Your task to perform on an android device: What's on my calendar tomorrow? Image 0: 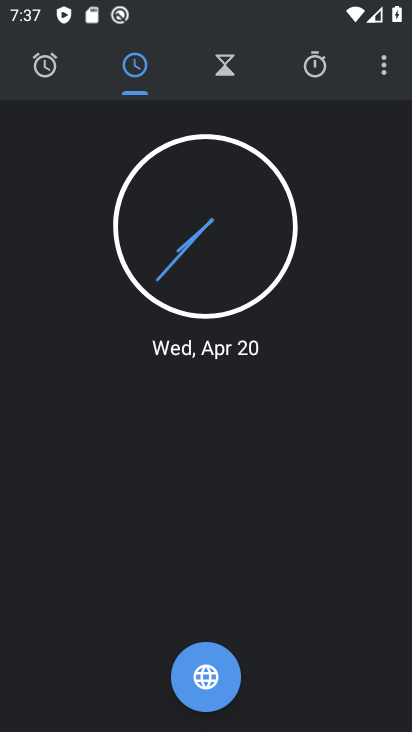
Step 0: press home button
Your task to perform on an android device: What's on my calendar tomorrow? Image 1: 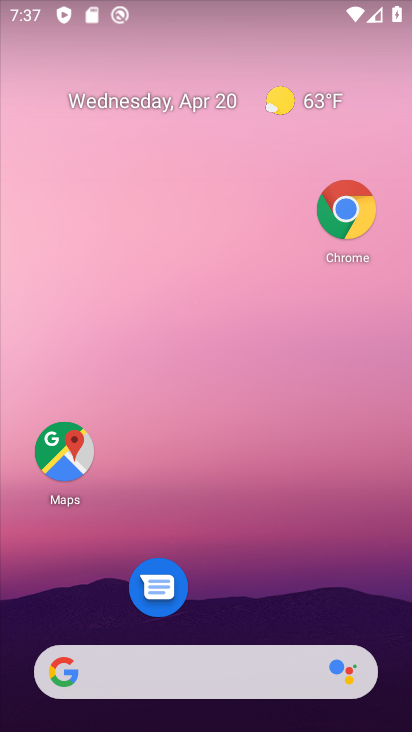
Step 1: click (215, 109)
Your task to perform on an android device: What's on my calendar tomorrow? Image 2: 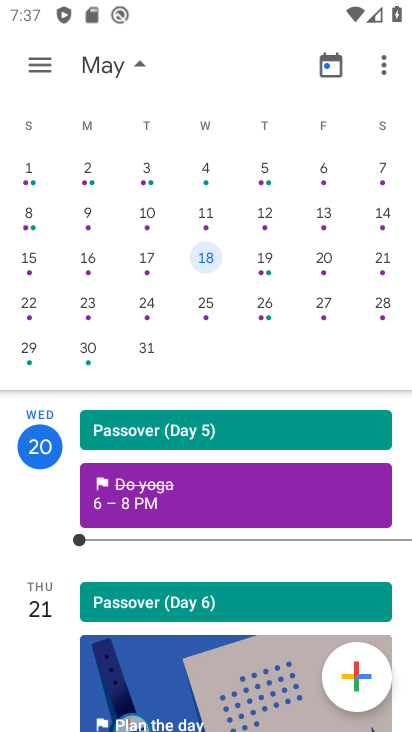
Step 2: click (101, 77)
Your task to perform on an android device: What's on my calendar tomorrow? Image 3: 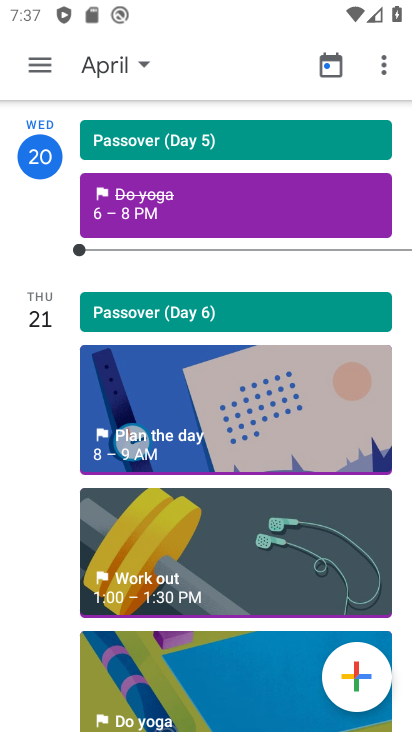
Step 3: click (133, 71)
Your task to perform on an android device: What's on my calendar tomorrow? Image 4: 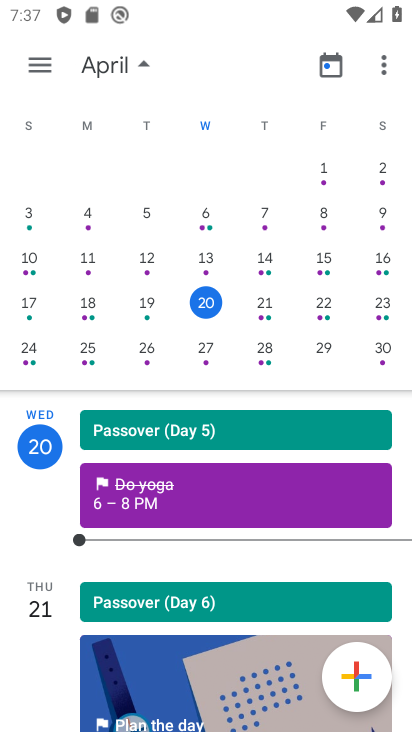
Step 4: click (263, 302)
Your task to perform on an android device: What's on my calendar tomorrow? Image 5: 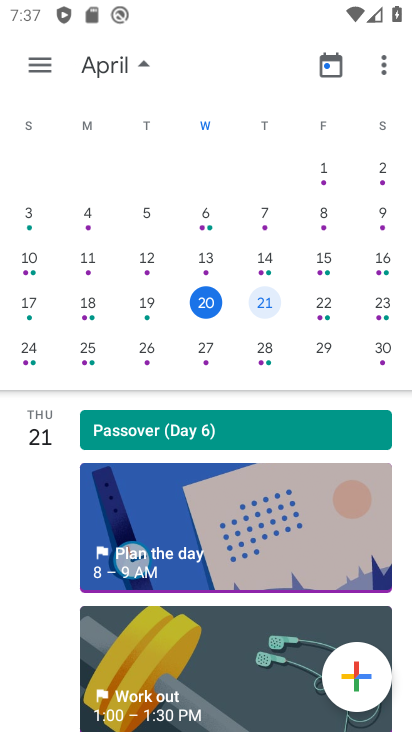
Step 5: click (160, 424)
Your task to perform on an android device: What's on my calendar tomorrow? Image 6: 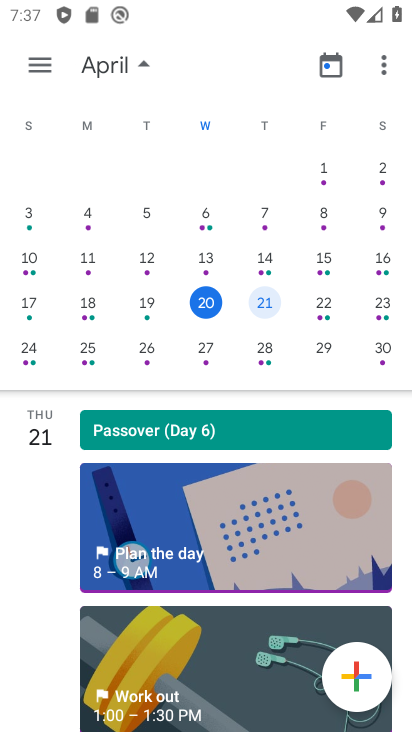
Step 6: task complete